Your task to perform on an android device: Open Google Chrome and open the bookmarks view Image 0: 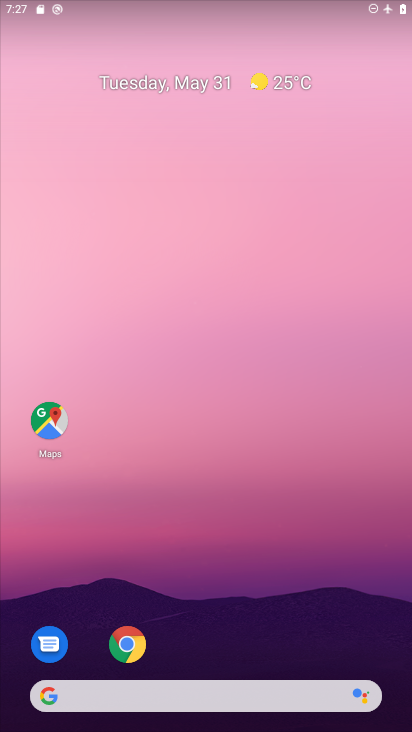
Step 0: press home button
Your task to perform on an android device: Open Google Chrome and open the bookmarks view Image 1: 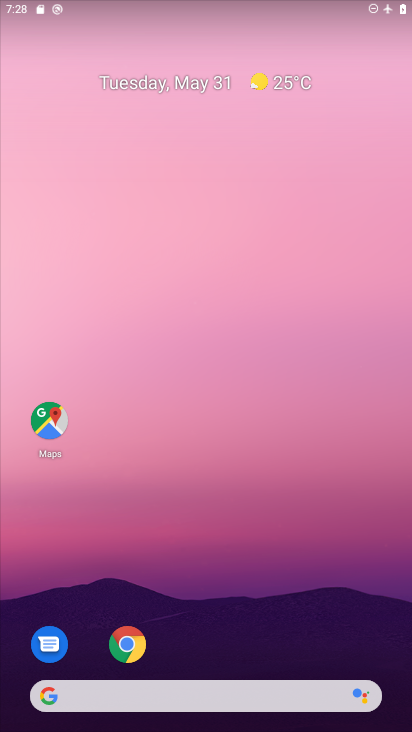
Step 1: drag from (281, 709) to (249, 384)
Your task to perform on an android device: Open Google Chrome and open the bookmarks view Image 2: 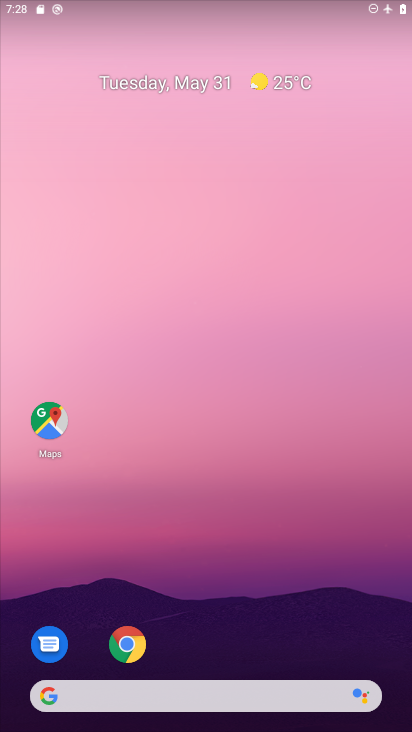
Step 2: drag from (195, 714) to (223, 211)
Your task to perform on an android device: Open Google Chrome and open the bookmarks view Image 3: 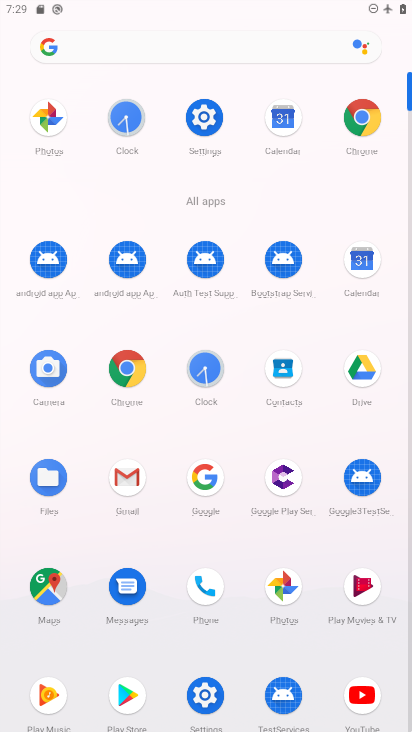
Step 3: click (361, 123)
Your task to perform on an android device: Open Google Chrome and open the bookmarks view Image 4: 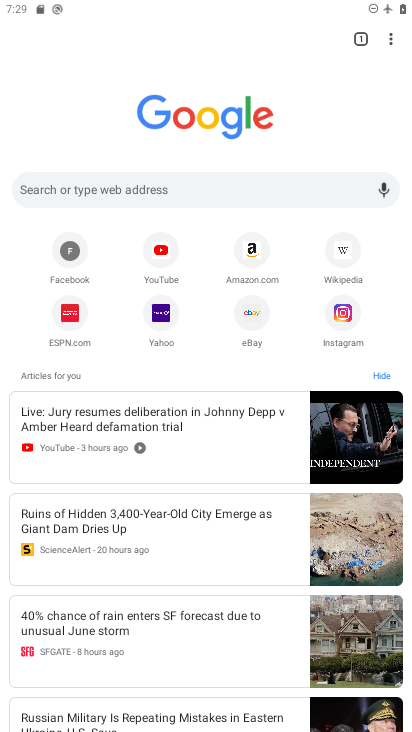
Step 4: click (389, 51)
Your task to perform on an android device: Open Google Chrome and open the bookmarks view Image 5: 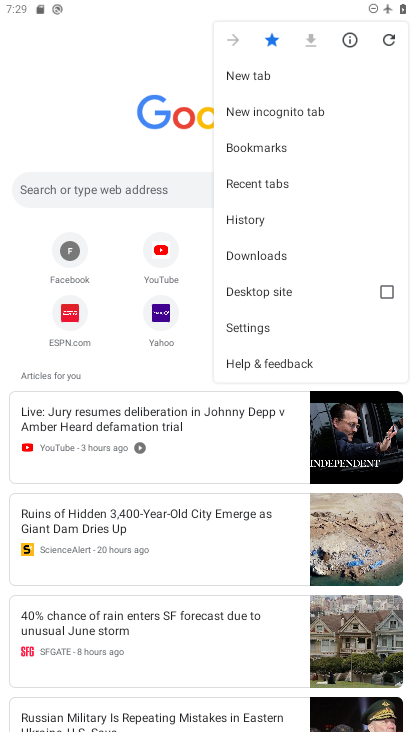
Step 5: click (272, 145)
Your task to perform on an android device: Open Google Chrome and open the bookmarks view Image 6: 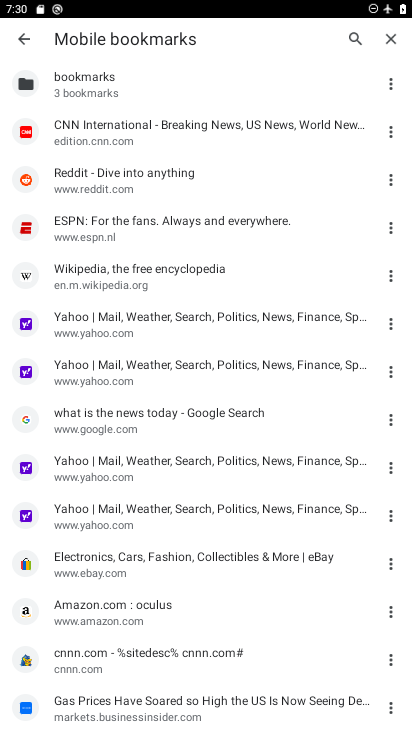
Step 6: task complete